Your task to perform on an android device: What's the weather going to be this weekend? Image 0: 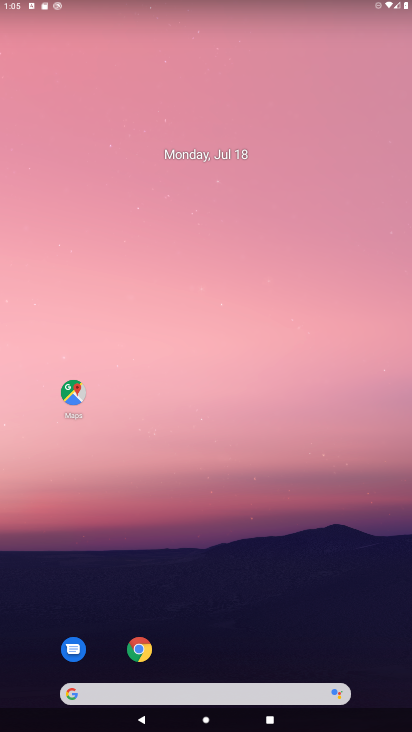
Step 0: click (142, 695)
Your task to perform on an android device: What's the weather going to be this weekend? Image 1: 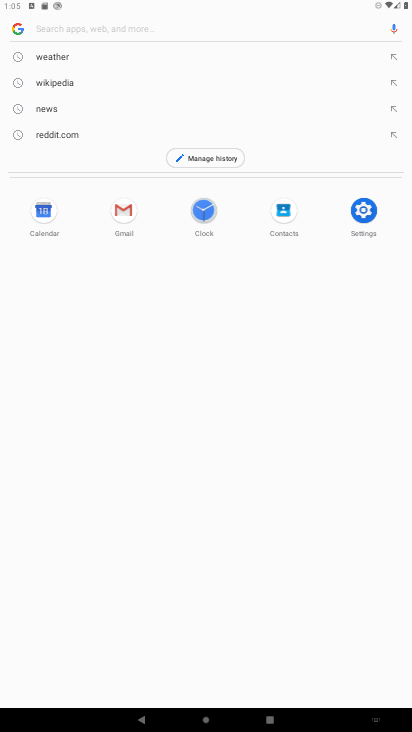
Step 1: click (49, 56)
Your task to perform on an android device: What's the weather going to be this weekend? Image 2: 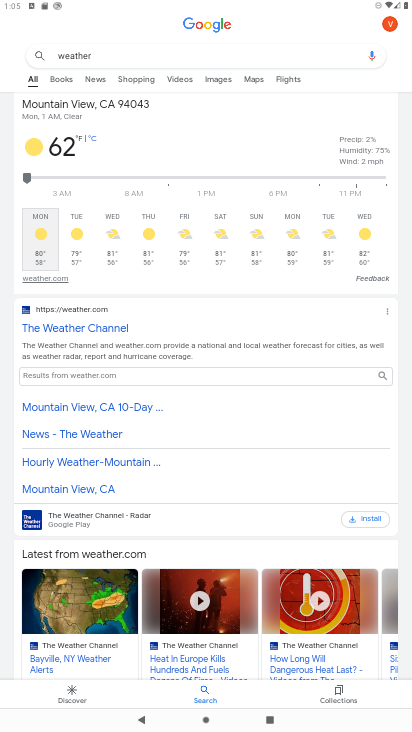
Step 2: task complete